Your task to perform on an android device: empty trash in google photos Image 0: 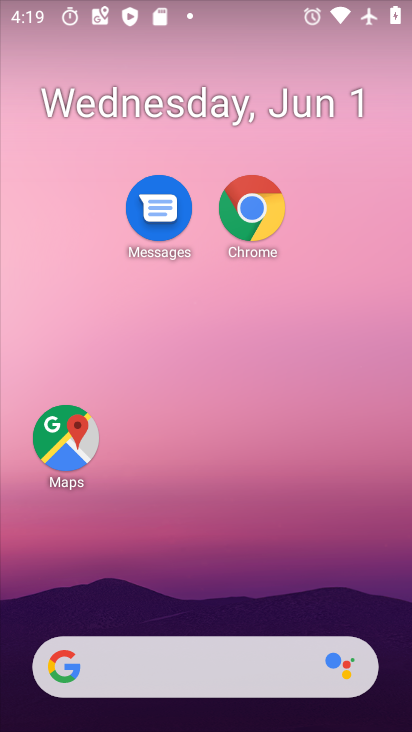
Step 0: drag from (202, 609) to (203, 274)
Your task to perform on an android device: empty trash in google photos Image 1: 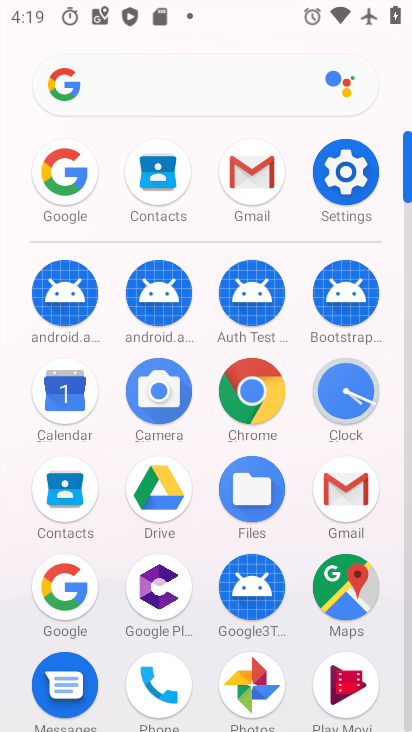
Step 1: drag from (233, 659) to (247, 372)
Your task to perform on an android device: empty trash in google photos Image 2: 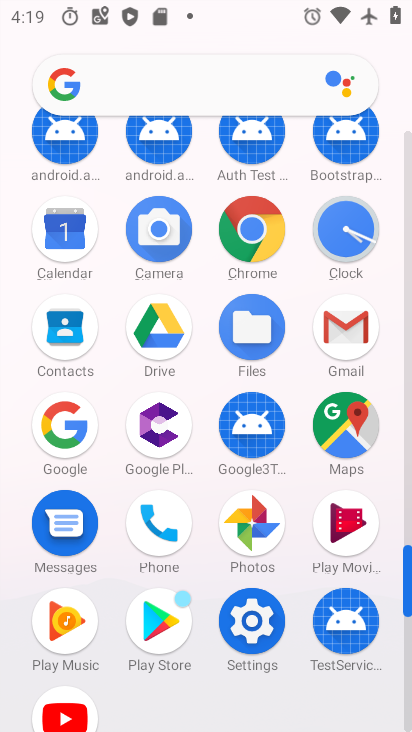
Step 2: click (247, 521)
Your task to perform on an android device: empty trash in google photos Image 3: 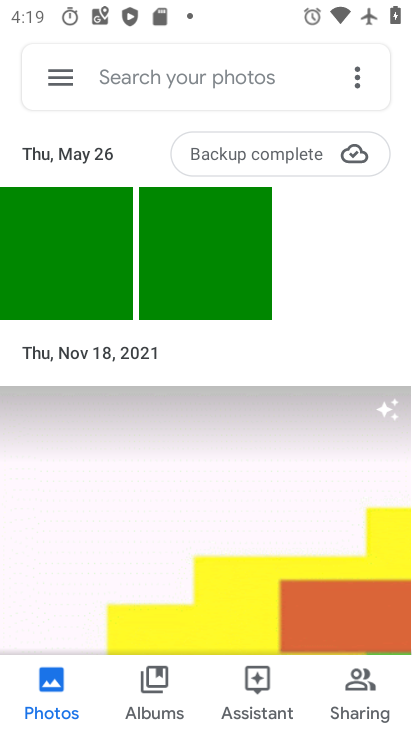
Step 3: click (52, 78)
Your task to perform on an android device: empty trash in google photos Image 4: 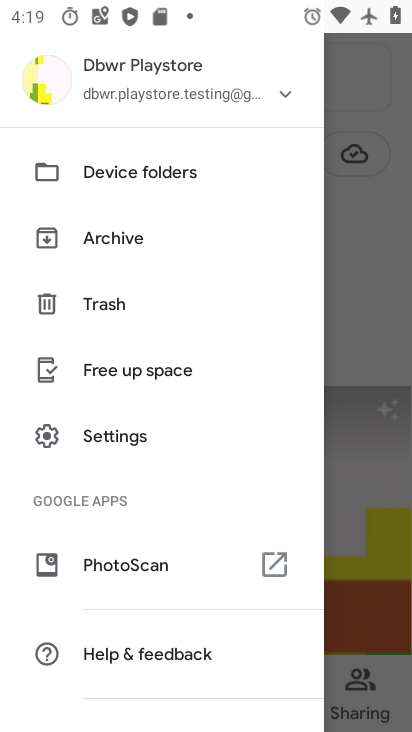
Step 4: click (113, 288)
Your task to perform on an android device: empty trash in google photos Image 5: 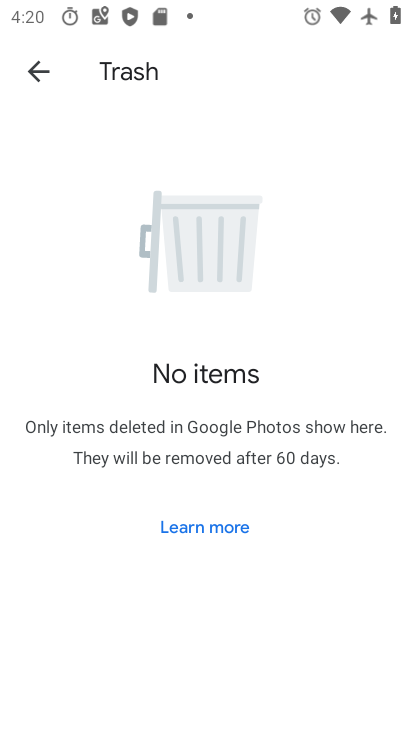
Step 5: task complete